Your task to perform on an android device: toggle javascript in the chrome app Image 0: 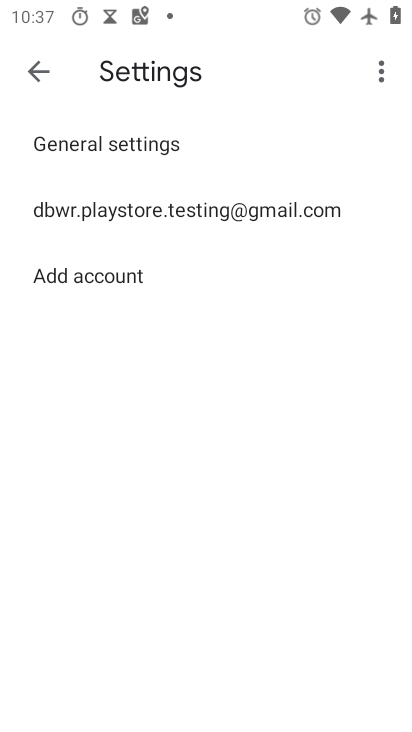
Step 0: press home button
Your task to perform on an android device: toggle javascript in the chrome app Image 1: 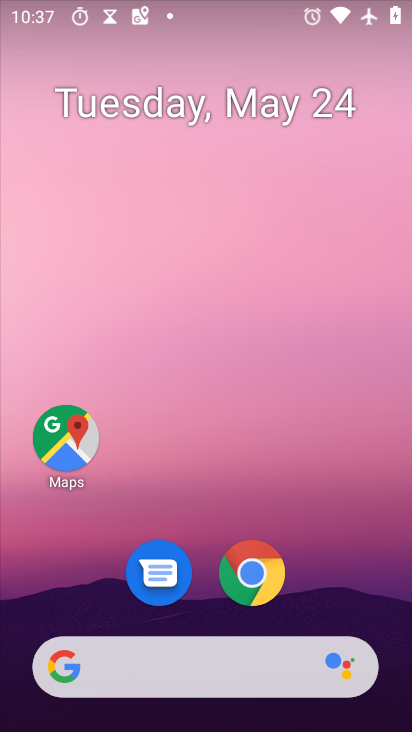
Step 1: drag from (329, 582) to (364, 3)
Your task to perform on an android device: toggle javascript in the chrome app Image 2: 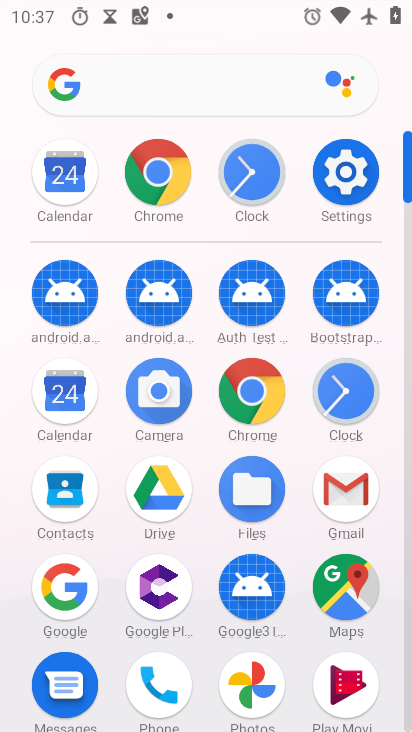
Step 2: click (159, 191)
Your task to perform on an android device: toggle javascript in the chrome app Image 3: 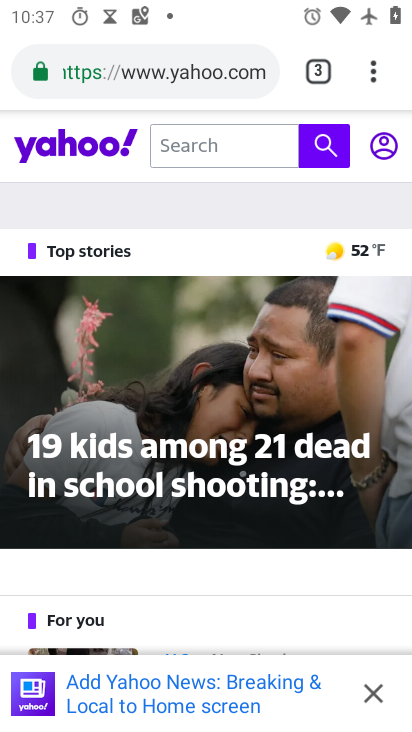
Step 3: drag from (375, 80) to (122, 569)
Your task to perform on an android device: toggle javascript in the chrome app Image 4: 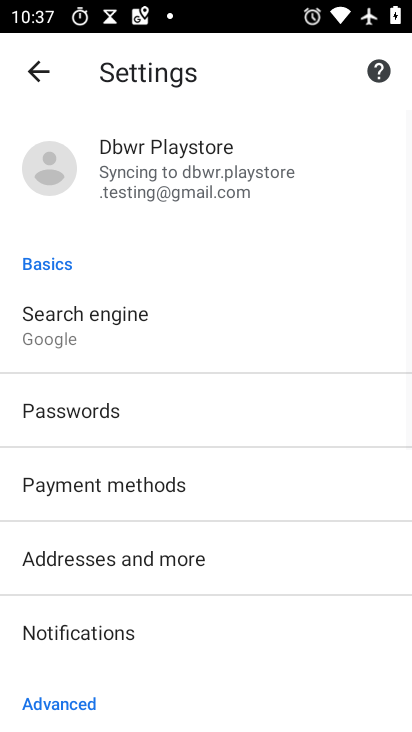
Step 4: drag from (101, 613) to (135, 142)
Your task to perform on an android device: toggle javascript in the chrome app Image 5: 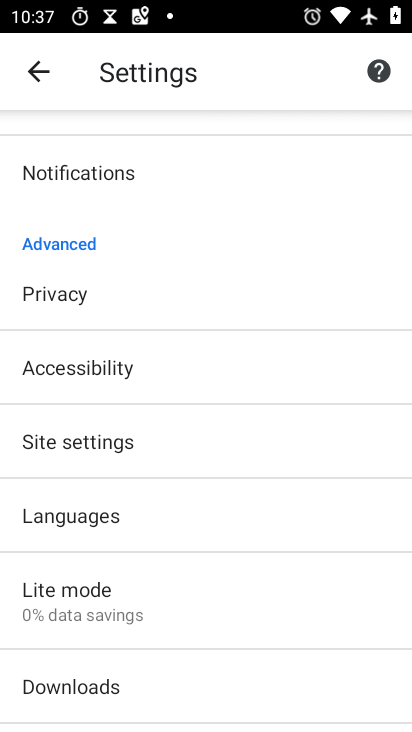
Step 5: click (57, 466)
Your task to perform on an android device: toggle javascript in the chrome app Image 6: 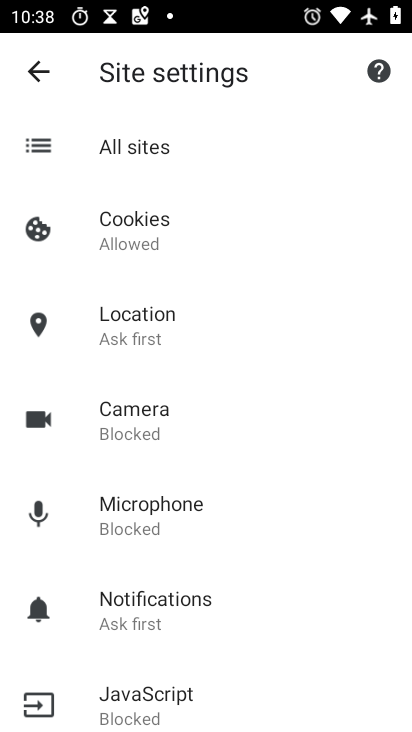
Step 6: drag from (148, 637) to (246, 147)
Your task to perform on an android device: toggle javascript in the chrome app Image 7: 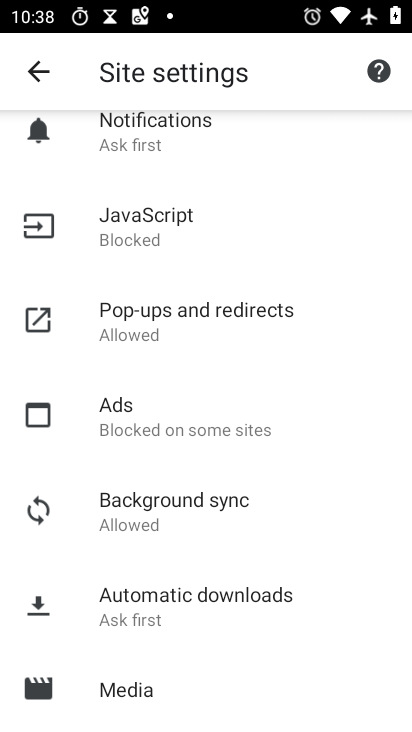
Step 7: click (174, 235)
Your task to perform on an android device: toggle javascript in the chrome app Image 8: 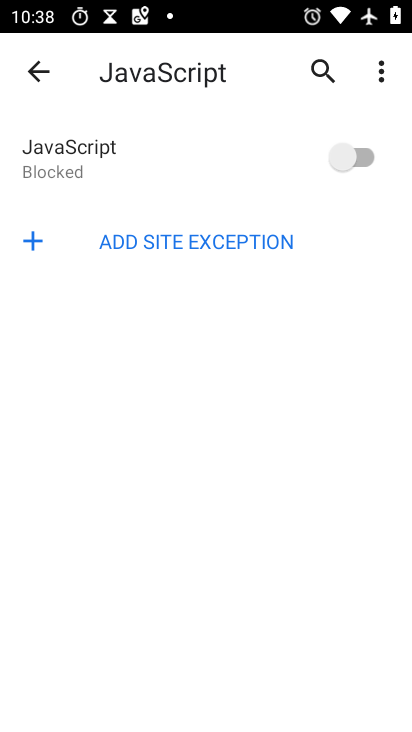
Step 8: click (355, 167)
Your task to perform on an android device: toggle javascript in the chrome app Image 9: 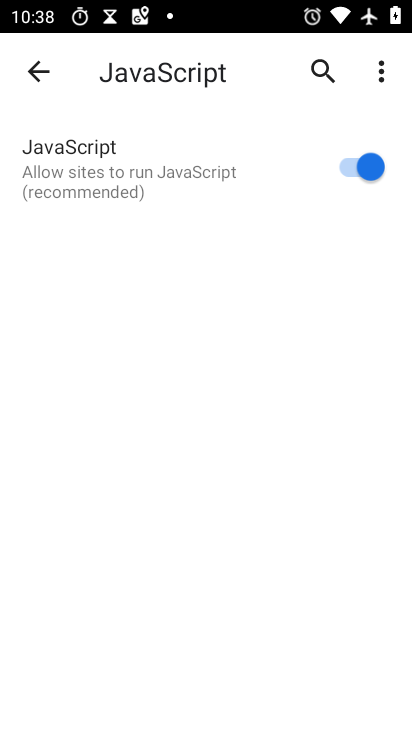
Step 9: task complete